Your task to perform on an android device: Set the phone to "Do not disturb". Image 0: 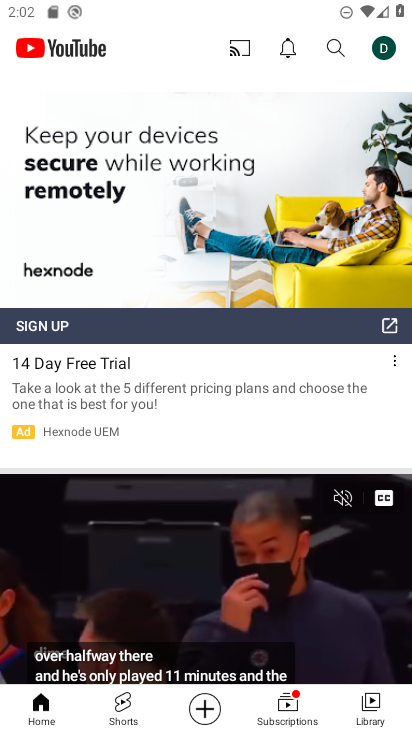
Step 0: press home button
Your task to perform on an android device: Set the phone to "Do not disturb". Image 1: 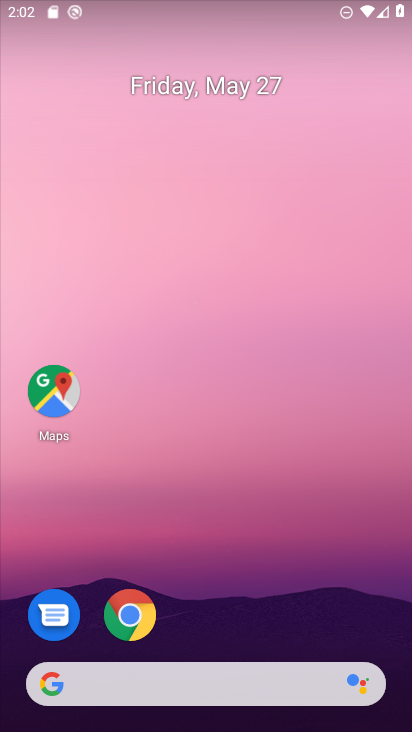
Step 1: drag from (208, 611) to (255, 145)
Your task to perform on an android device: Set the phone to "Do not disturb". Image 2: 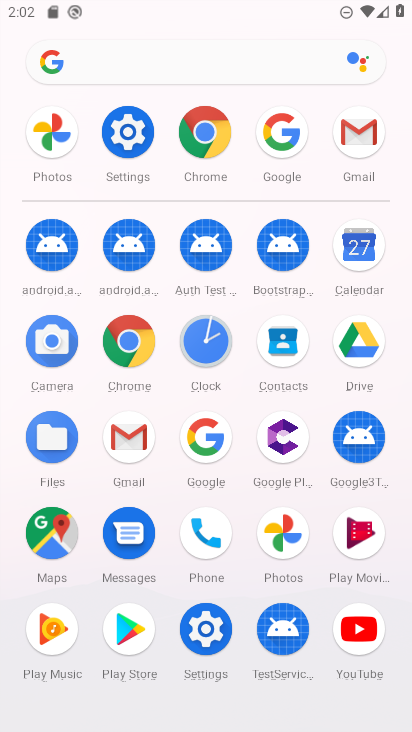
Step 2: click (203, 644)
Your task to perform on an android device: Set the phone to "Do not disturb". Image 3: 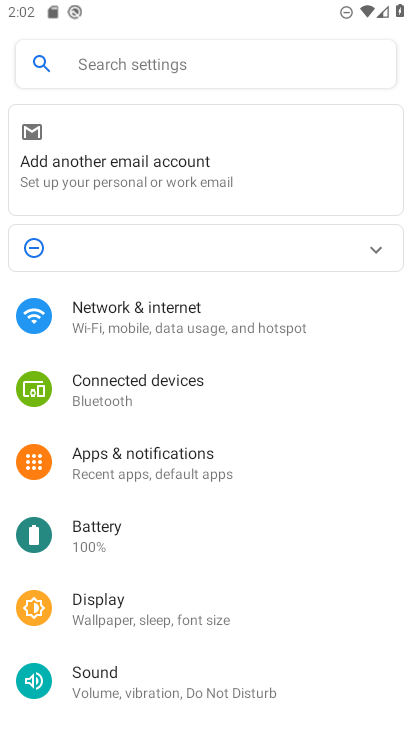
Step 3: drag from (154, 644) to (208, 187)
Your task to perform on an android device: Set the phone to "Do not disturb". Image 4: 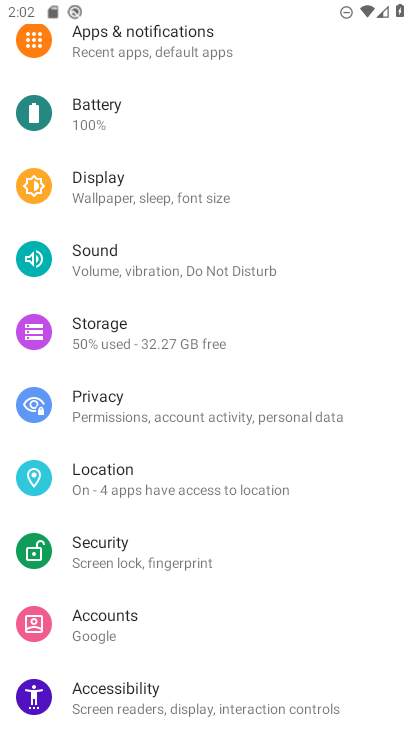
Step 4: drag from (192, 554) to (222, 239)
Your task to perform on an android device: Set the phone to "Do not disturb". Image 5: 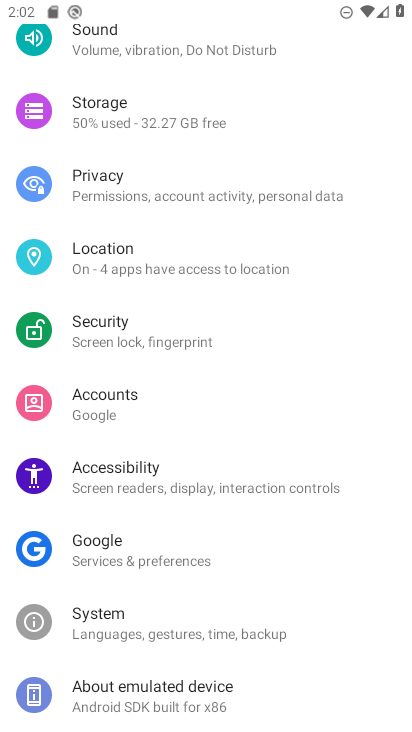
Step 5: click (172, 697)
Your task to perform on an android device: Set the phone to "Do not disturb". Image 6: 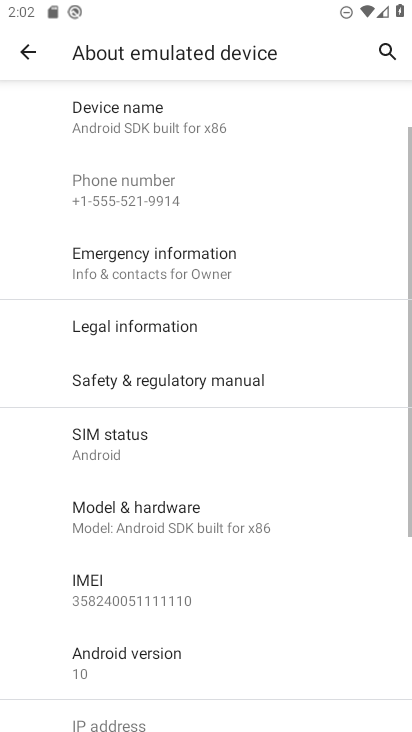
Step 6: press back button
Your task to perform on an android device: Set the phone to "Do not disturb". Image 7: 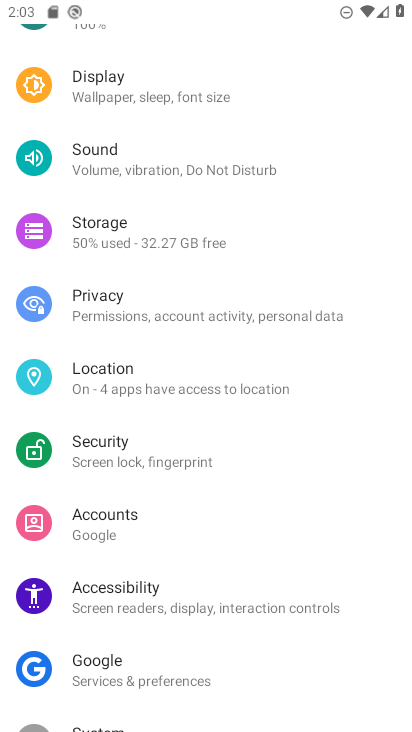
Step 7: drag from (162, 269) to (207, 574)
Your task to perform on an android device: Set the phone to "Do not disturb". Image 8: 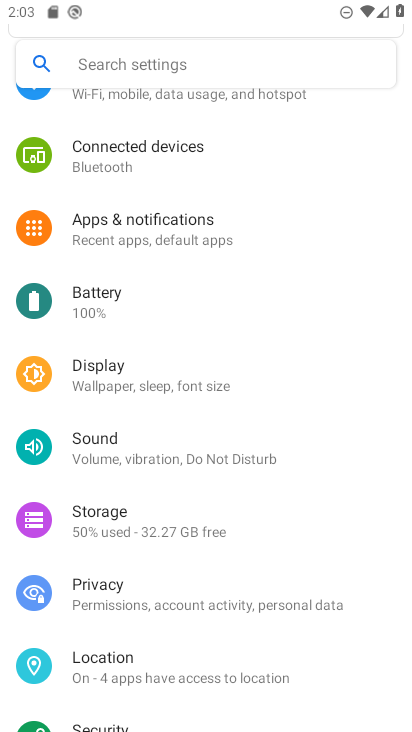
Step 8: click (215, 439)
Your task to perform on an android device: Set the phone to "Do not disturb". Image 9: 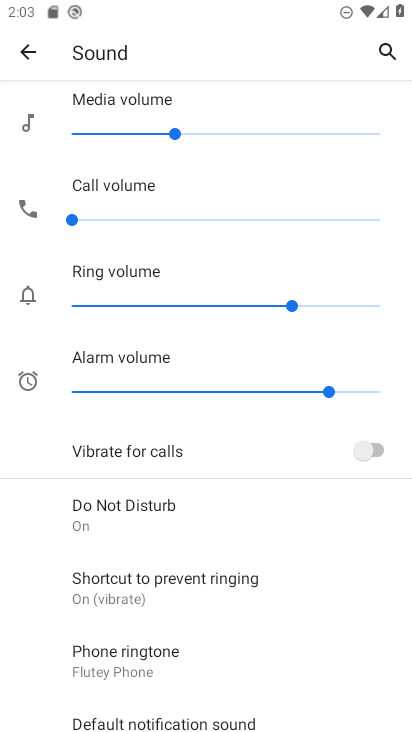
Step 9: task complete